Your task to perform on an android device: What is the recent news? Image 0: 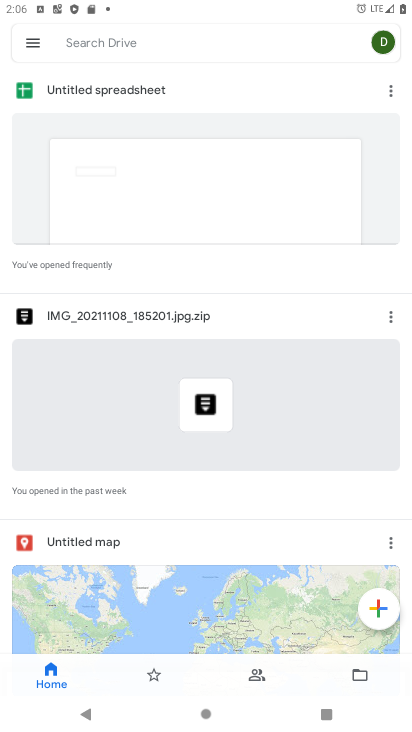
Step 0: drag from (383, 645) to (412, 561)
Your task to perform on an android device: What is the recent news? Image 1: 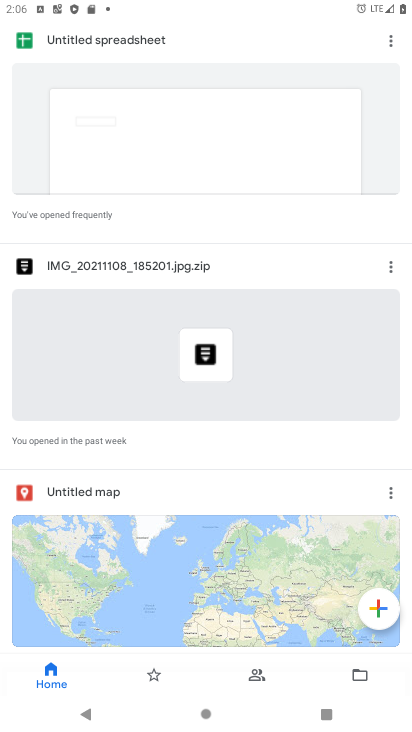
Step 1: task complete